Your task to perform on an android device: Go to sound settings Image 0: 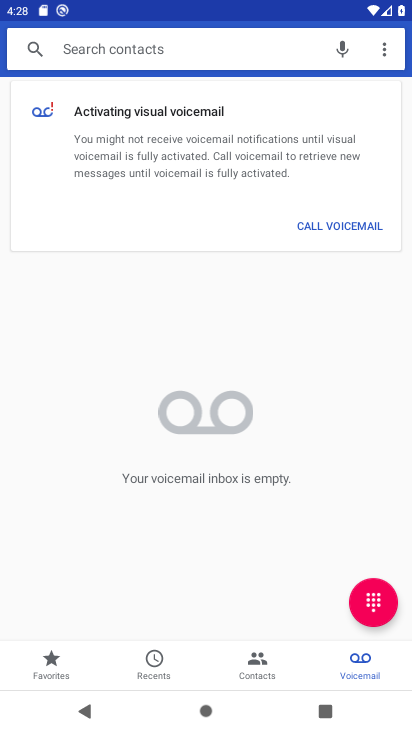
Step 0: press back button
Your task to perform on an android device: Go to sound settings Image 1: 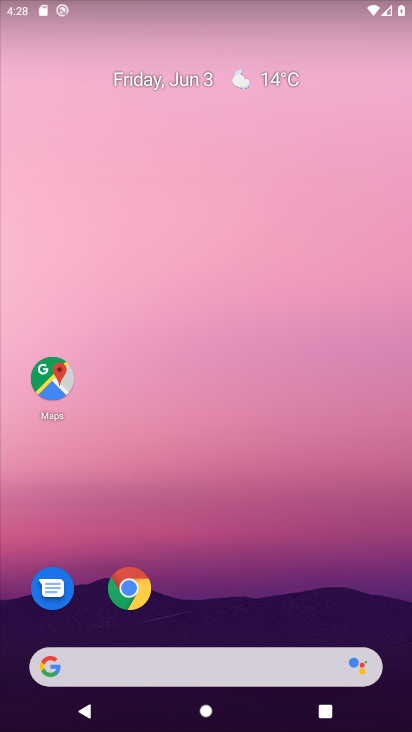
Step 1: drag from (251, 571) to (222, 49)
Your task to perform on an android device: Go to sound settings Image 2: 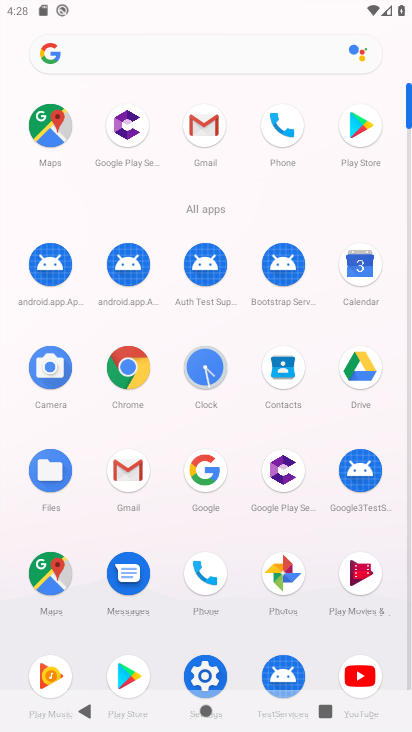
Step 2: drag from (11, 623) to (29, 232)
Your task to perform on an android device: Go to sound settings Image 3: 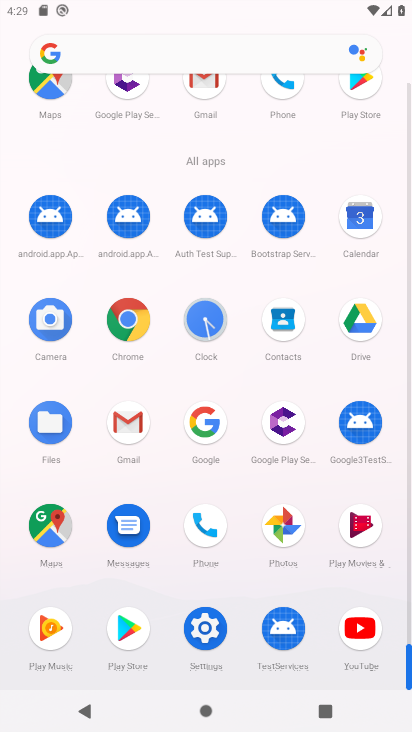
Step 3: click (202, 625)
Your task to perform on an android device: Go to sound settings Image 4: 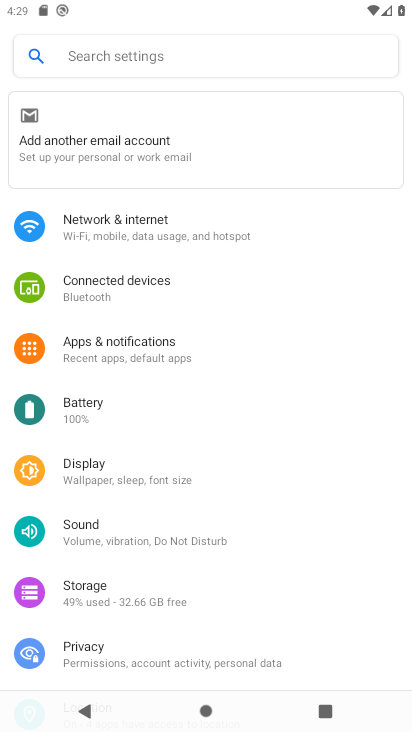
Step 4: click (142, 528)
Your task to perform on an android device: Go to sound settings Image 5: 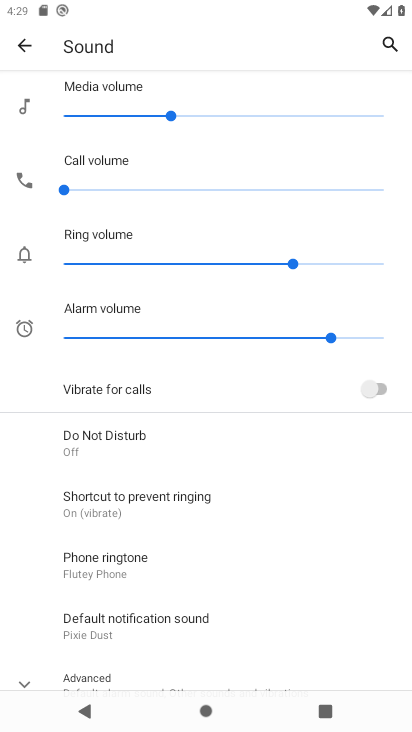
Step 5: click (242, 94)
Your task to perform on an android device: Go to sound settings Image 6: 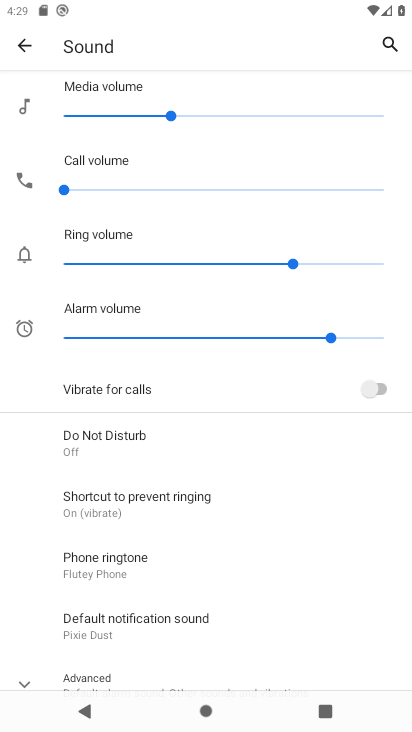
Step 6: drag from (153, 610) to (220, 166)
Your task to perform on an android device: Go to sound settings Image 7: 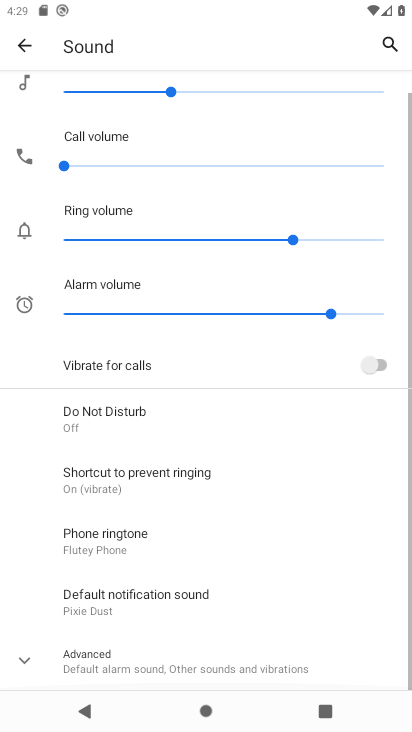
Step 7: click (25, 681)
Your task to perform on an android device: Go to sound settings Image 8: 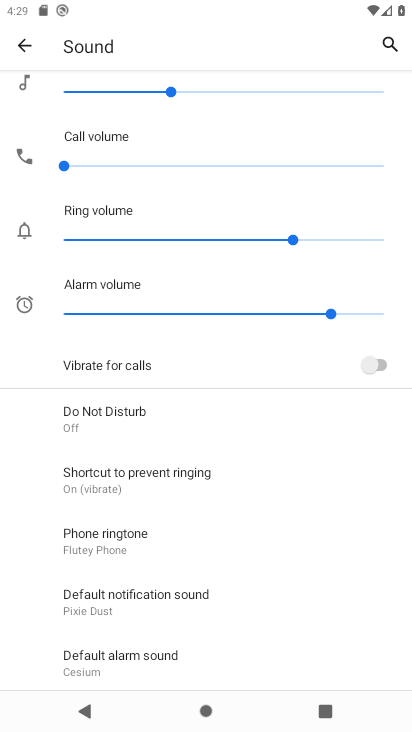
Step 8: task complete